Your task to perform on an android device: Show me popular games on the Play Store Image 0: 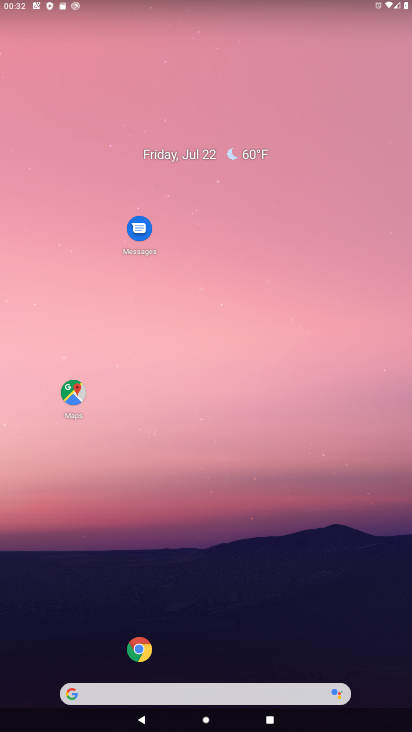
Step 0: drag from (23, 680) to (114, 102)
Your task to perform on an android device: Show me popular games on the Play Store Image 1: 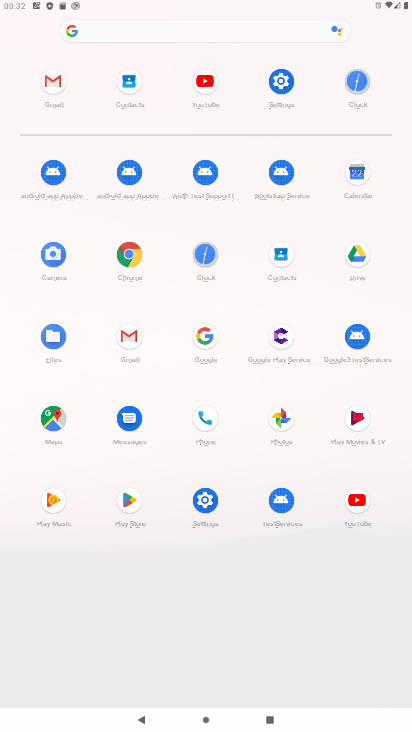
Step 1: click (128, 495)
Your task to perform on an android device: Show me popular games on the Play Store Image 2: 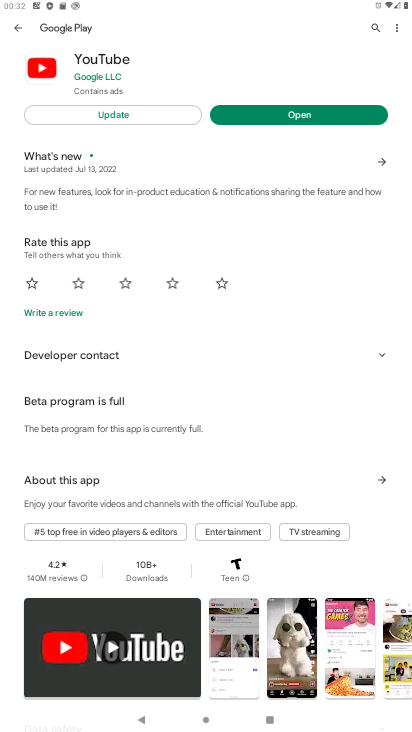
Step 2: click (20, 30)
Your task to perform on an android device: Show me popular games on the Play Store Image 3: 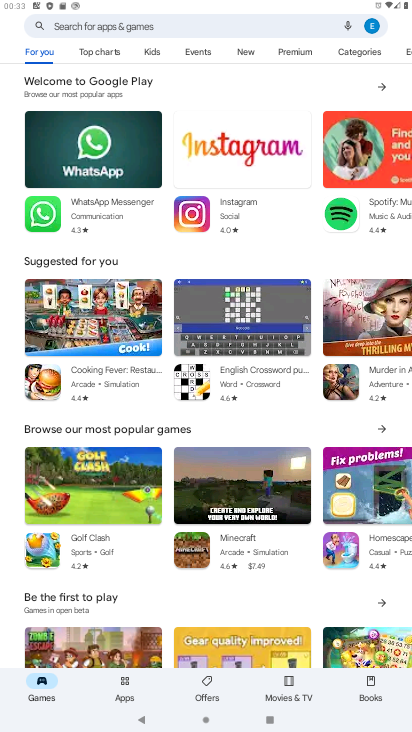
Step 3: click (95, 25)
Your task to perform on an android device: Show me popular games on the Play Store Image 4: 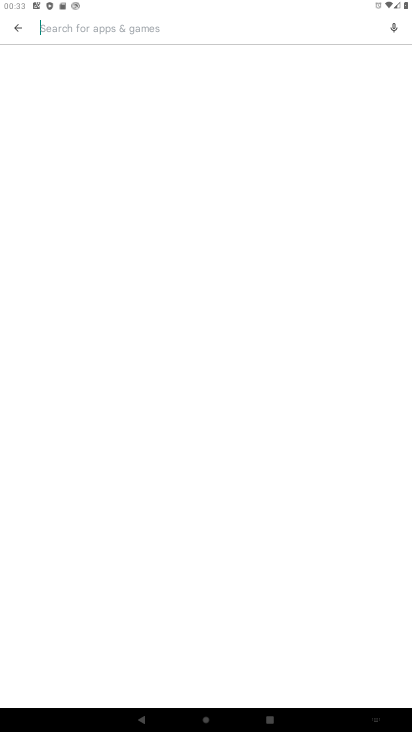
Step 4: type "popular games"
Your task to perform on an android device: Show me popular games on the Play Store Image 5: 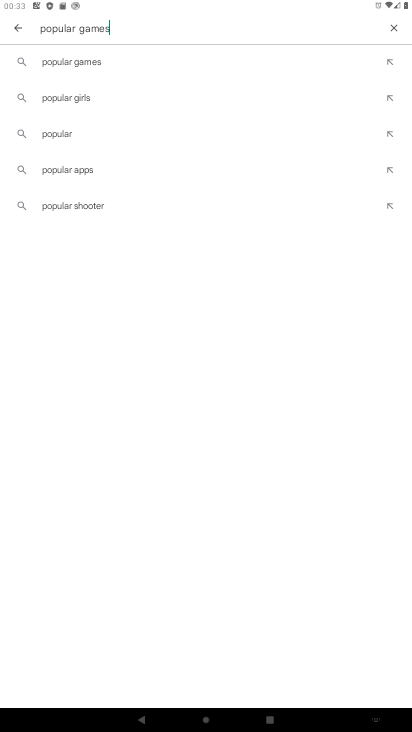
Step 5: type ""
Your task to perform on an android device: Show me popular games on the Play Store Image 6: 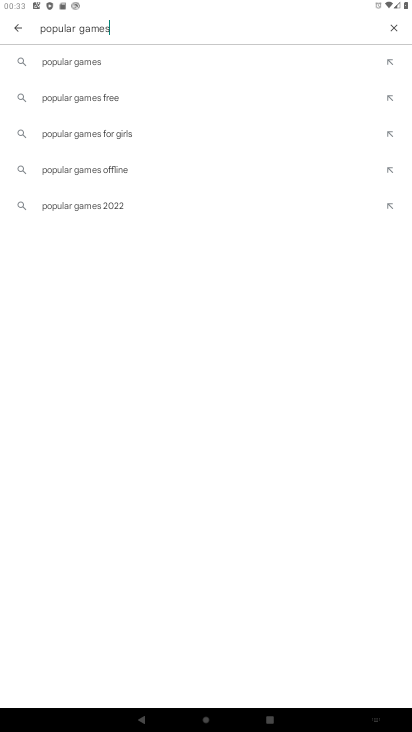
Step 6: click (47, 54)
Your task to perform on an android device: Show me popular games on the Play Store Image 7: 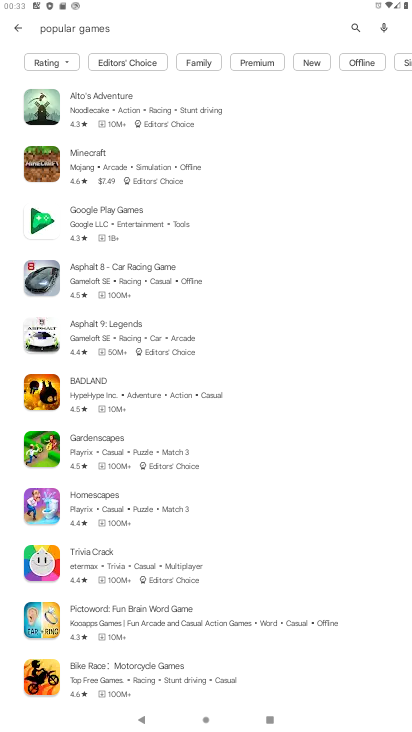
Step 7: task complete